Your task to perform on an android device: turn smart compose on in the gmail app Image 0: 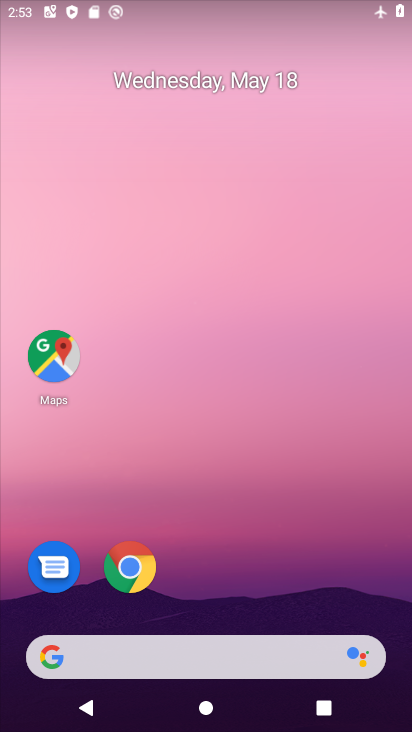
Step 0: drag from (243, 592) to (236, 172)
Your task to perform on an android device: turn smart compose on in the gmail app Image 1: 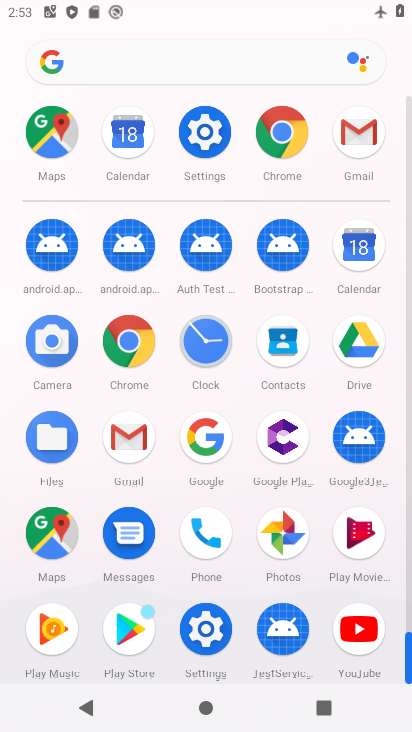
Step 1: click (350, 140)
Your task to perform on an android device: turn smart compose on in the gmail app Image 2: 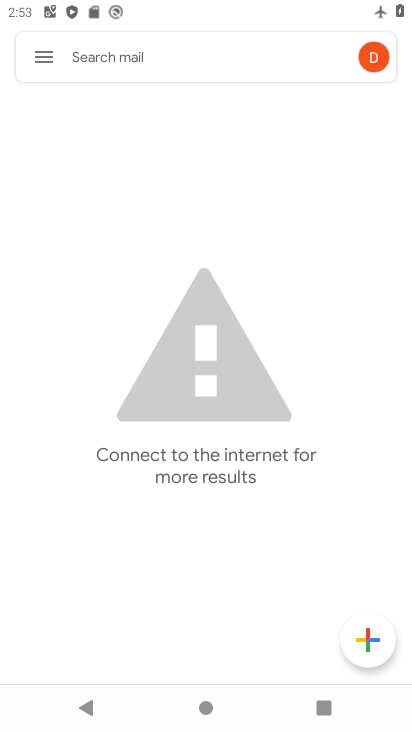
Step 2: click (33, 48)
Your task to perform on an android device: turn smart compose on in the gmail app Image 3: 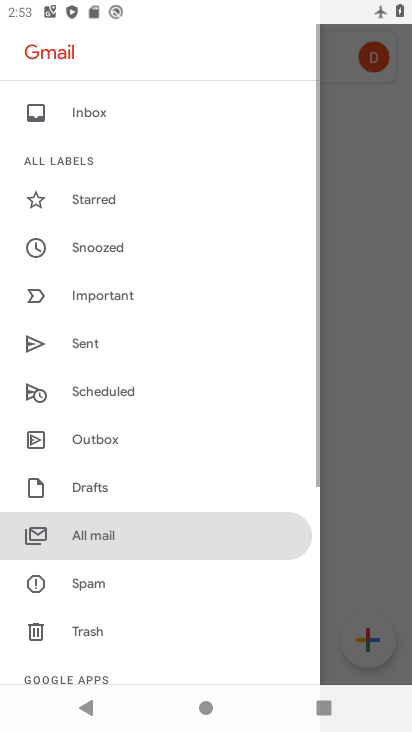
Step 3: drag from (177, 600) to (186, 148)
Your task to perform on an android device: turn smart compose on in the gmail app Image 4: 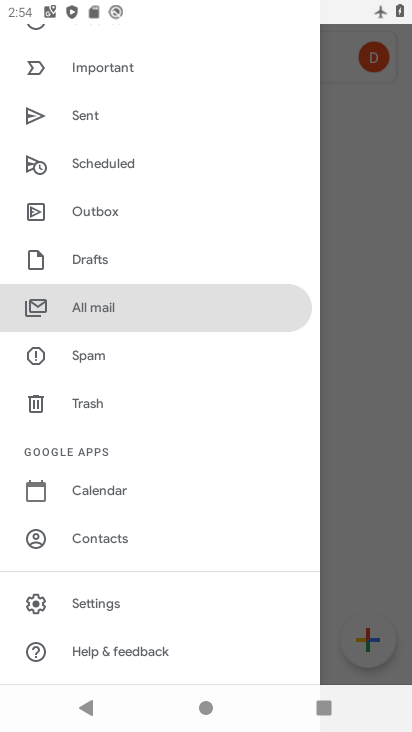
Step 4: click (122, 591)
Your task to perform on an android device: turn smart compose on in the gmail app Image 5: 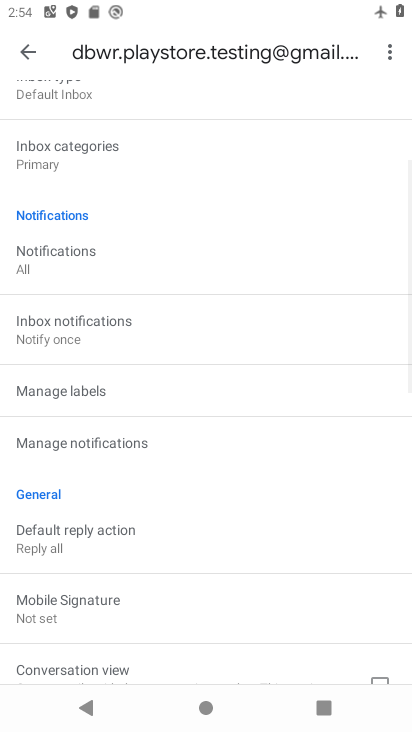
Step 5: task complete